Your task to perform on an android device: turn on priority inbox in the gmail app Image 0: 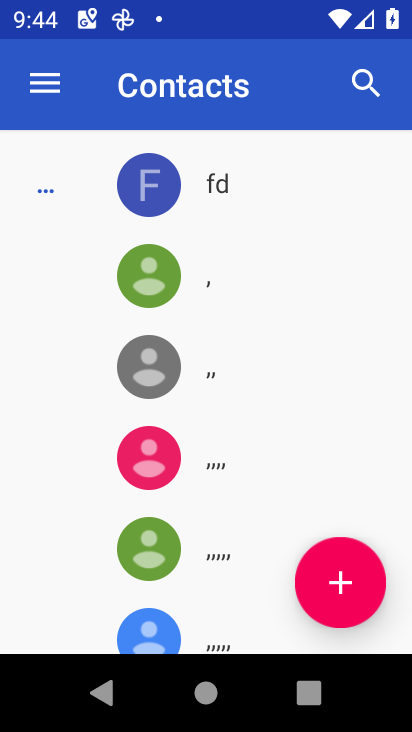
Step 0: press home button
Your task to perform on an android device: turn on priority inbox in the gmail app Image 1: 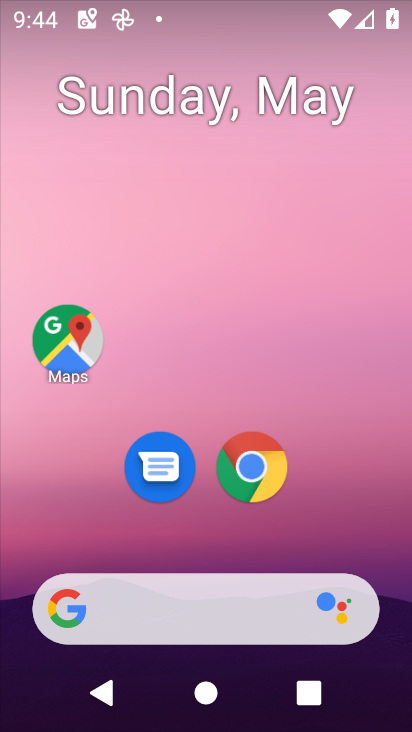
Step 1: drag from (385, 543) to (368, 208)
Your task to perform on an android device: turn on priority inbox in the gmail app Image 2: 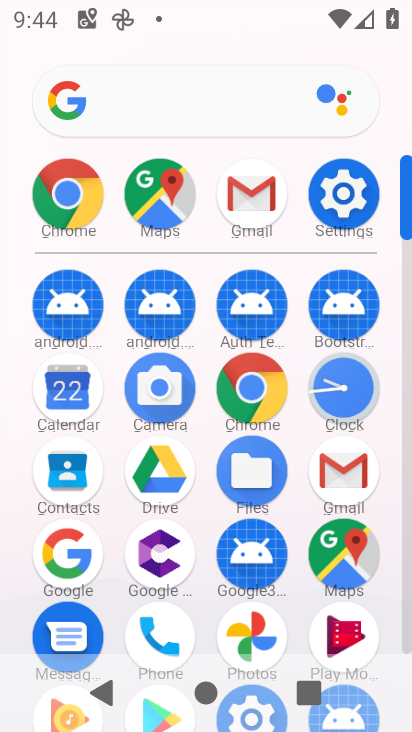
Step 2: click (327, 470)
Your task to perform on an android device: turn on priority inbox in the gmail app Image 3: 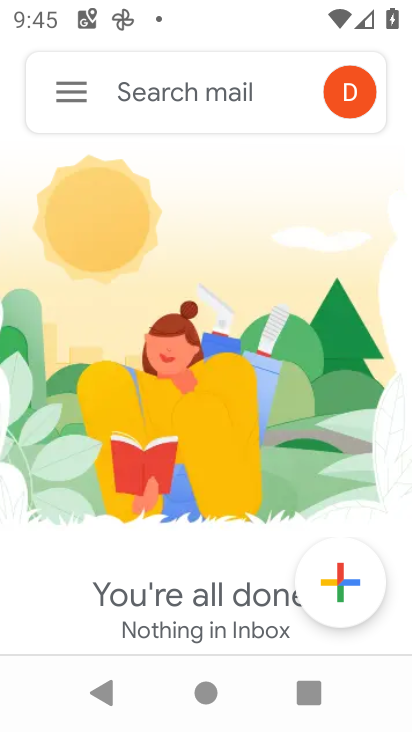
Step 3: click (72, 94)
Your task to perform on an android device: turn on priority inbox in the gmail app Image 4: 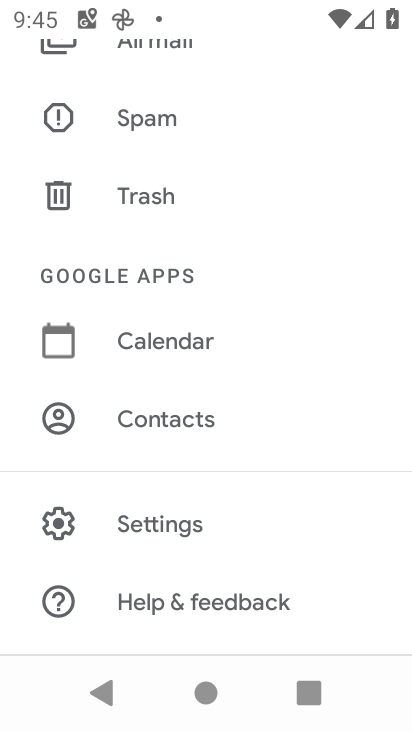
Step 4: click (166, 537)
Your task to perform on an android device: turn on priority inbox in the gmail app Image 5: 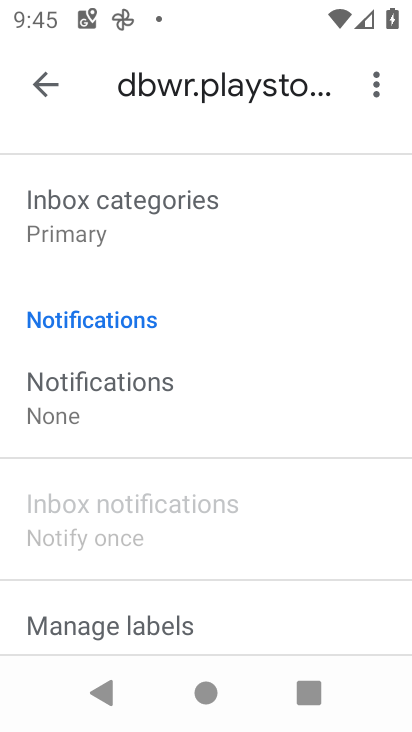
Step 5: drag from (225, 583) to (244, 337)
Your task to perform on an android device: turn on priority inbox in the gmail app Image 6: 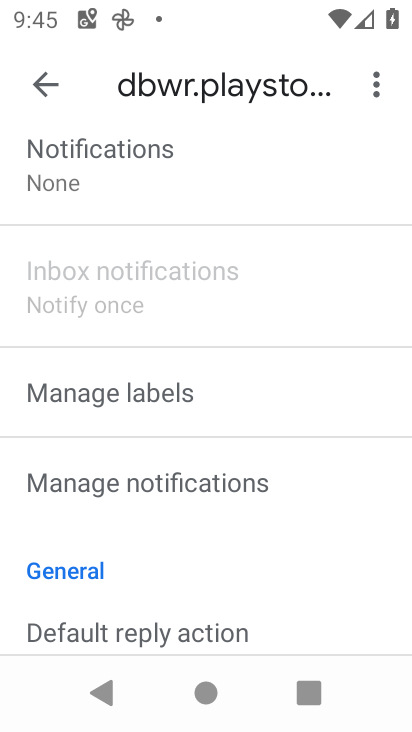
Step 6: drag from (253, 537) to (265, 259)
Your task to perform on an android device: turn on priority inbox in the gmail app Image 7: 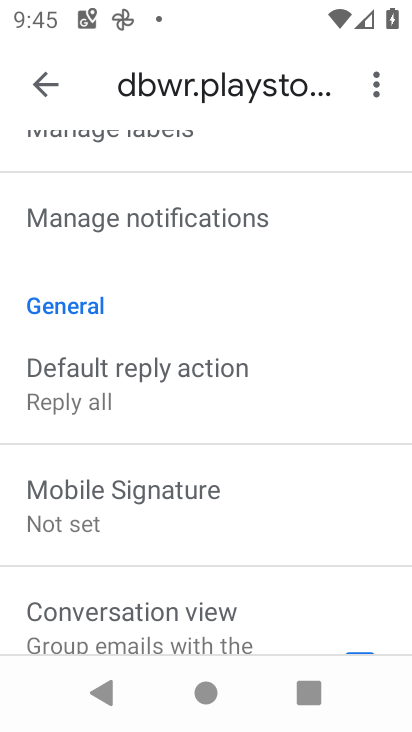
Step 7: drag from (259, 527) to (262, 253)
Your task to perform on an android device: turn on priority inbox in the gmail app Image 8: 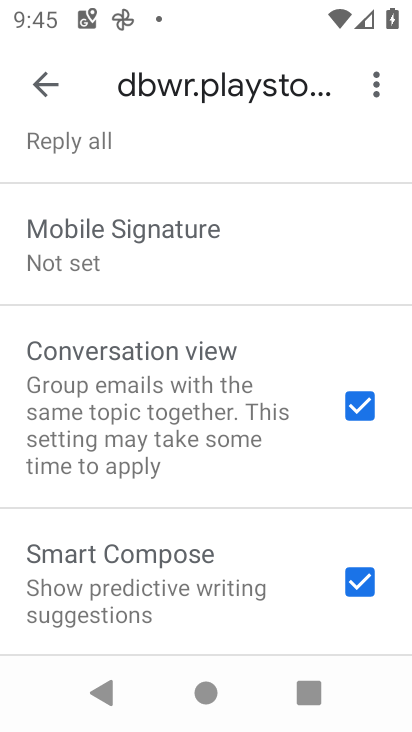
Step 8: drag from (272, 216) to (193, 649)
Your task to perform on an android device: turn on priority inbox in the gmail app Image 9: 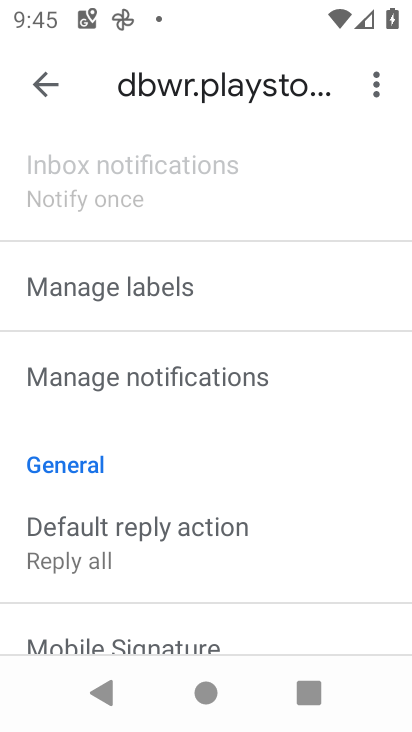
Step 9: drag from (164, 256) to (158, 604)
Your task to perform on an android device: turn on priority inbox in the gmail app Image 10: 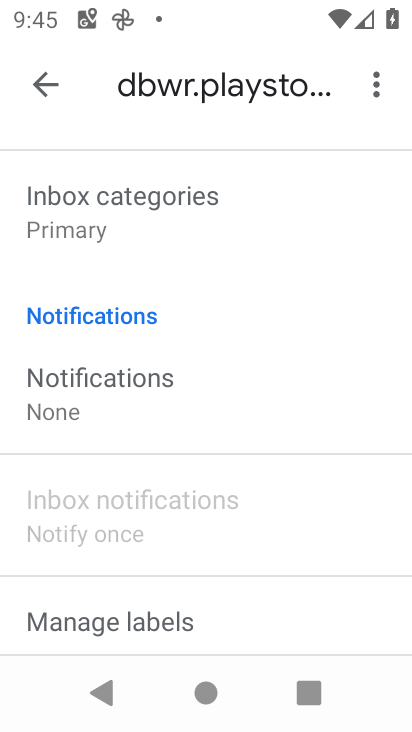
Step 10: drag from (195, 662) to (376, 247)
Your task to perform on an android device: turn on priority inbox in the gmail app Image 11: 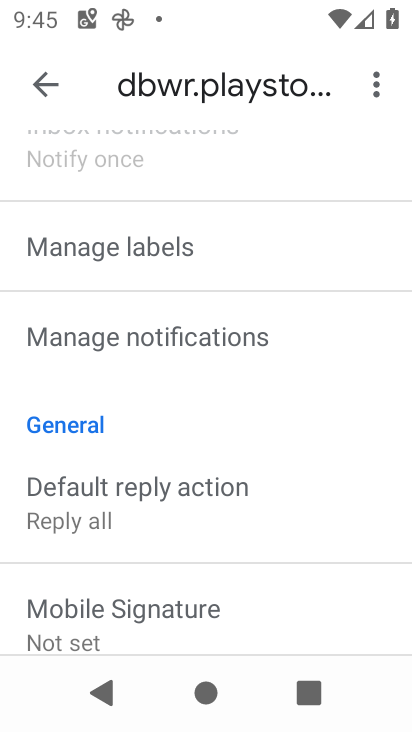
Step 11: drag from (248, 223) to (152, 539)
Your task to perform on an android device: turn on priority inbox in the gmail app Image 12: 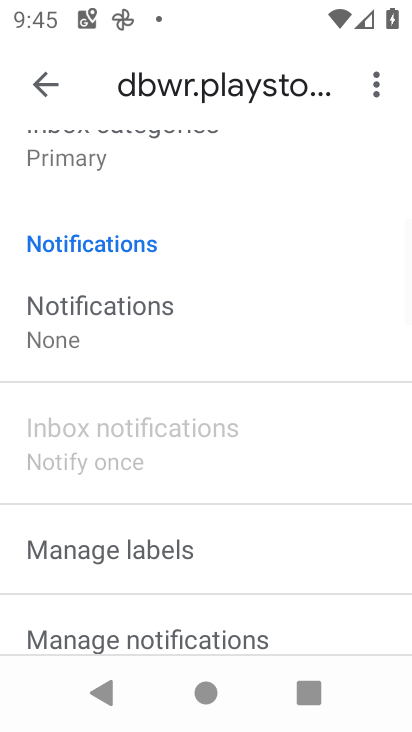
Step 12: drag from (168, 263) to (132, 561)
Your task to perform on an android device: turn on priority inbox in the gmail app Image 13: 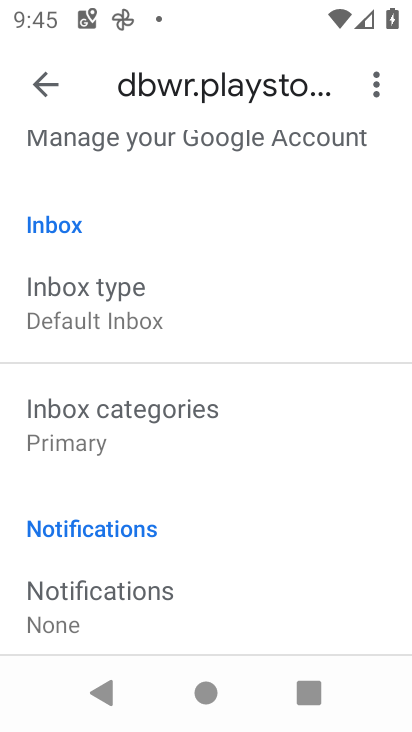
Step 13: click (106, 326)
Your task to perform on an android device: turn on priority inbox in the gmail app Image 14: 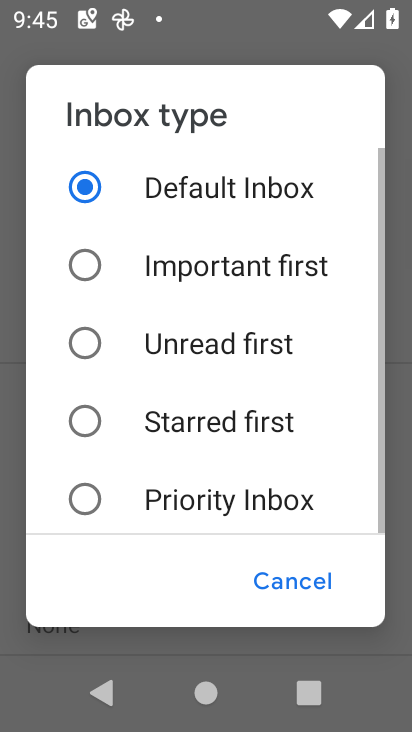
Step 14: click (78, 500)
Your task to perform on an android device: turn on priority inbox in the gmail app Image 15: 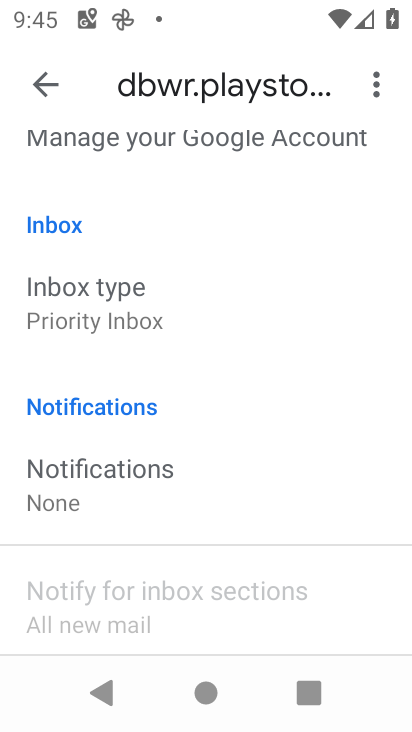
Step 15: task complete